Your task to perform on an android device: delete browsing data in the chrome app Image 0: 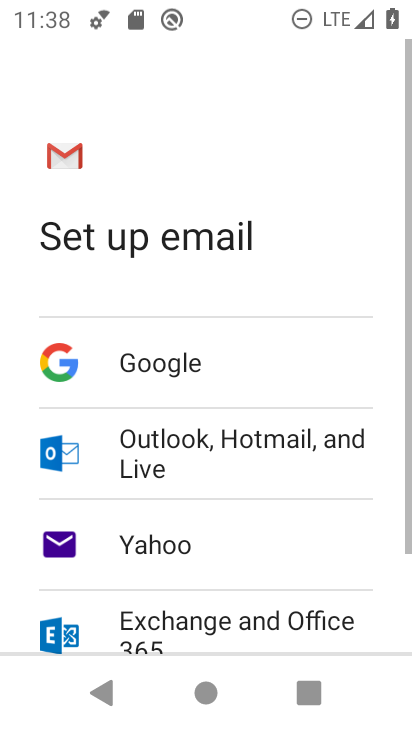
Step 0: press home button
Your task to perform on an android device: delete browsing data in the chrome app Image 1: 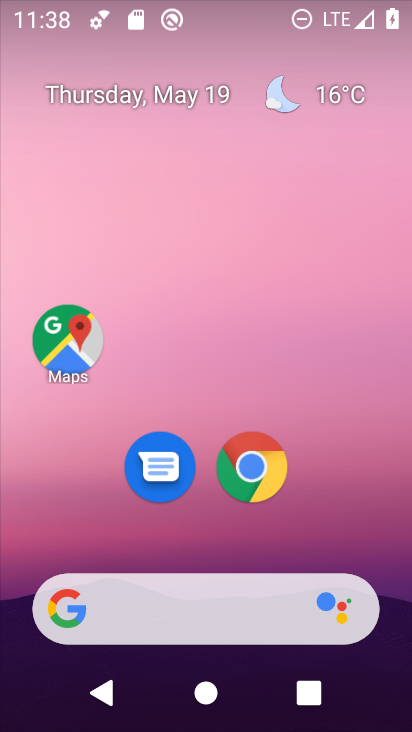
Step 1: click (256, 471)
Your task to perform on an android device: delete browsing data in the chrome app Image 2: 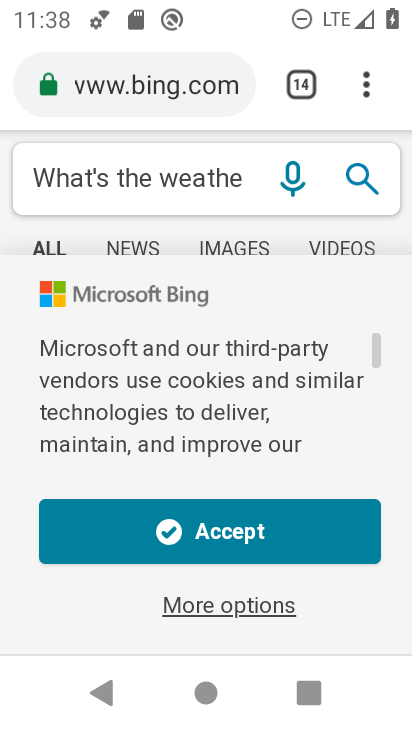
Step 2: click (379, 77)
Your task to perform on an android device: delete browsing data in the chrome app Image 3: 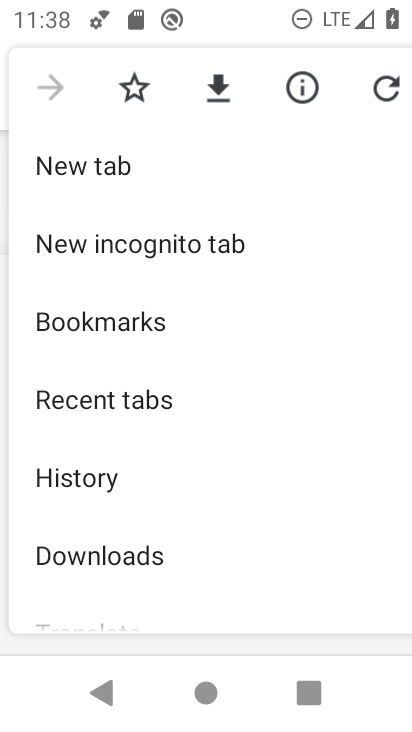
Step 3: drag from (209, 541) to (224, 331)
Your task to perform on an android device: delete browsing data in the chrome app Image 4: 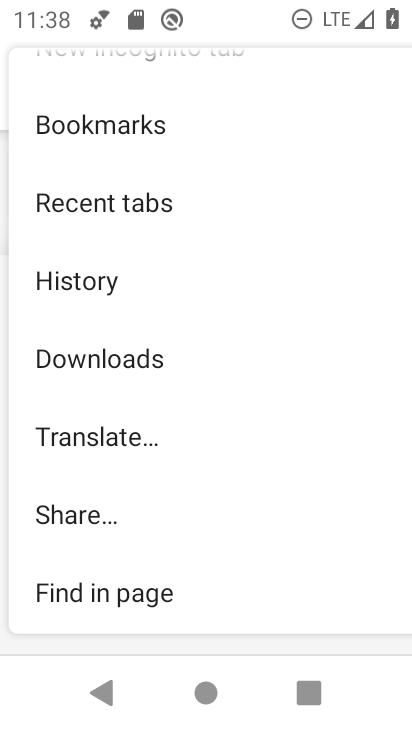
Step 4: drag from (151, 551) to (219, 237)
Your task to perform on an android device: delete browsing data in the chrome app Image 5: 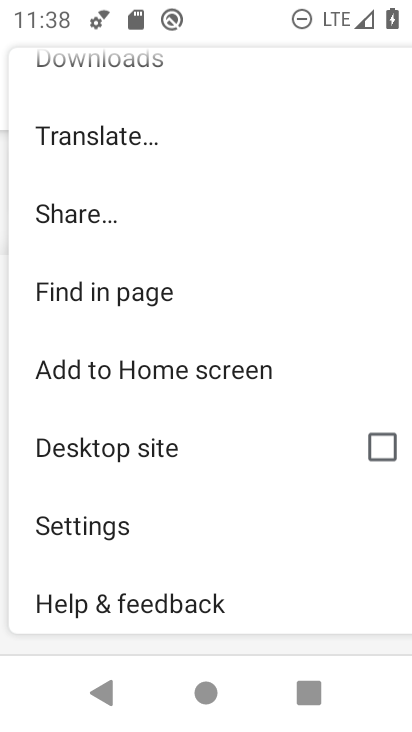
Step 5: drag from (152, 297) to (159, 511)
Your task to perform on an android device: delete browsing data in the chrome app Image 6: 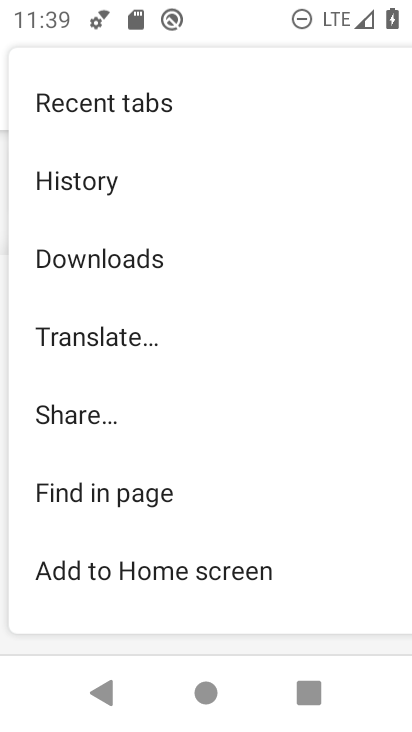
Step 6: click (130, 182)
Your task to perform on an android device: delete browsing data in the chrome app Image 7: 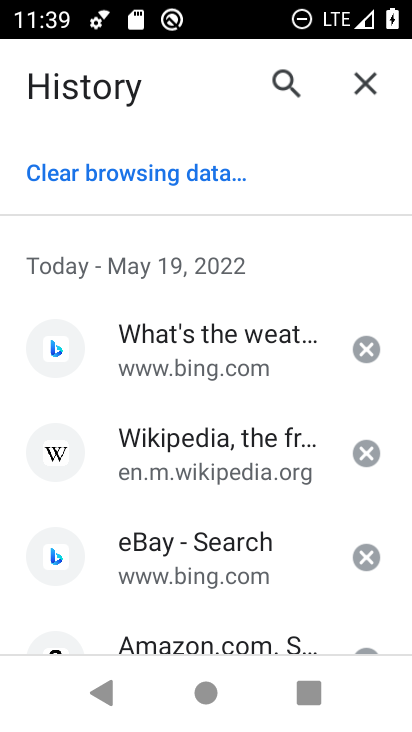
Step 7: click (101, 178)
Your task to perform on an android device: delete browsing data in the chrome app Image 8: 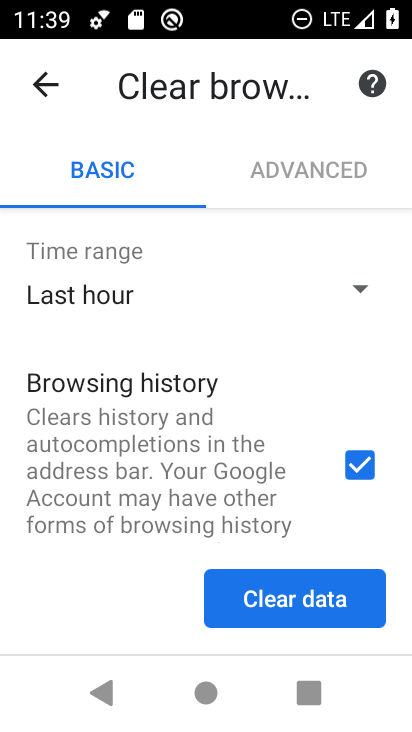
Step 8: click (330, 596)
Your task to perform on an android device: delete browsing data in the chrome app Image 9: 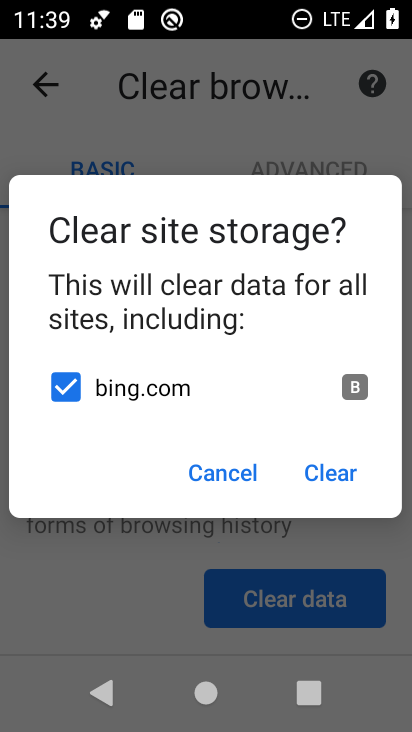
Step 9: click (348, 474)
Your task to perform on an android device: delete browsing data in the chrome app Image 10: 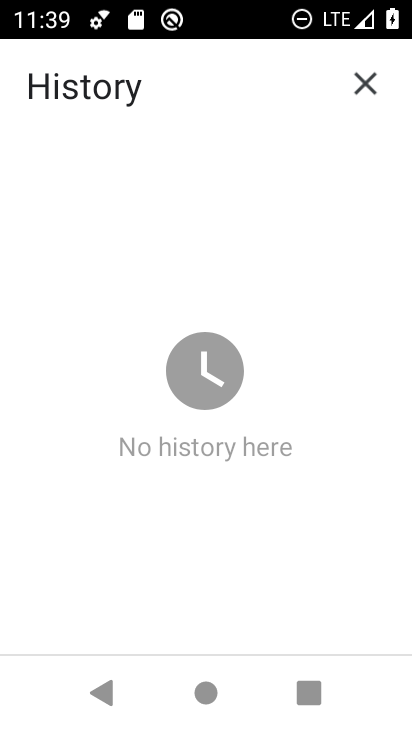
Step 10: task complete